Your task to perform on an android device: Open battery settings Image 0: 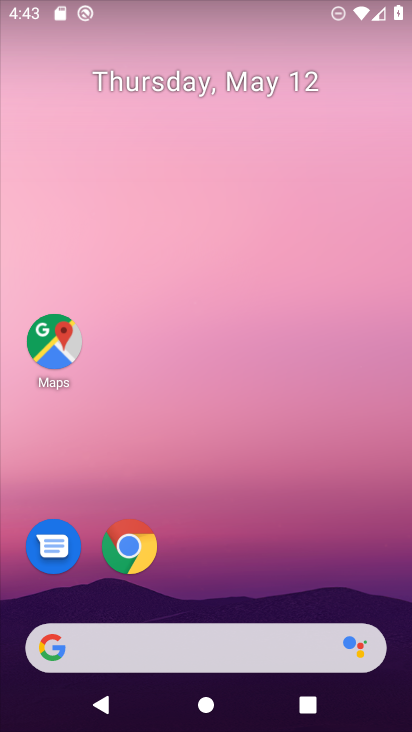
Step 0: drag from (251, 614) to (311, 289)
Your task to perform on an android device: Open battery settings Image 1: 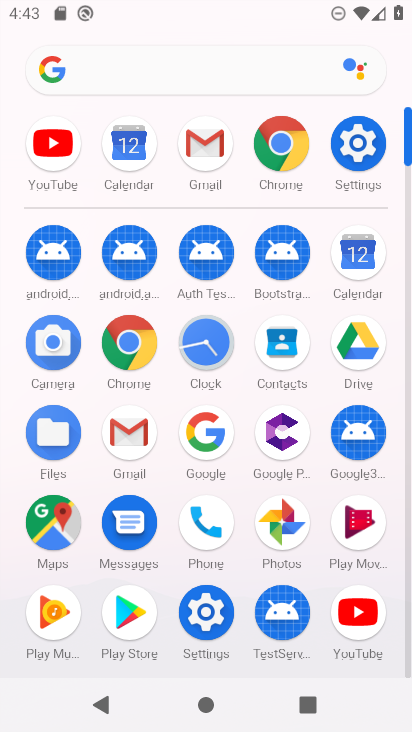
Step 1: click (359, 143)
Your task to perform on an android device: Open battery settings Image 2: 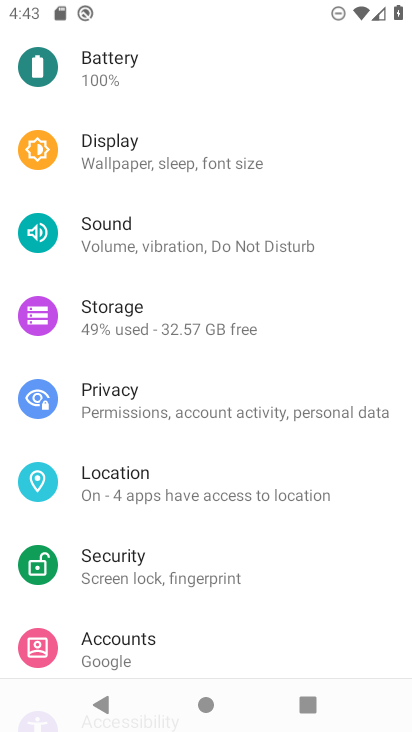
Step 2: click (133, 74)
Your task to perform on an android device: Open battery settings Image 3: 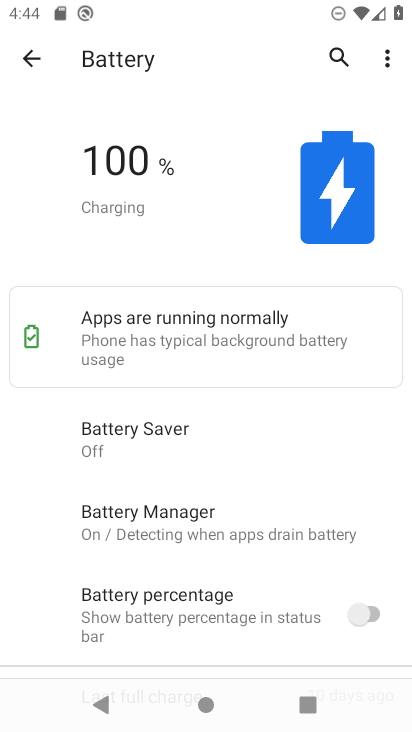
Step 3: task complete